Your task to perform on an android device: What's on my calendar tomorrow? Image 0: 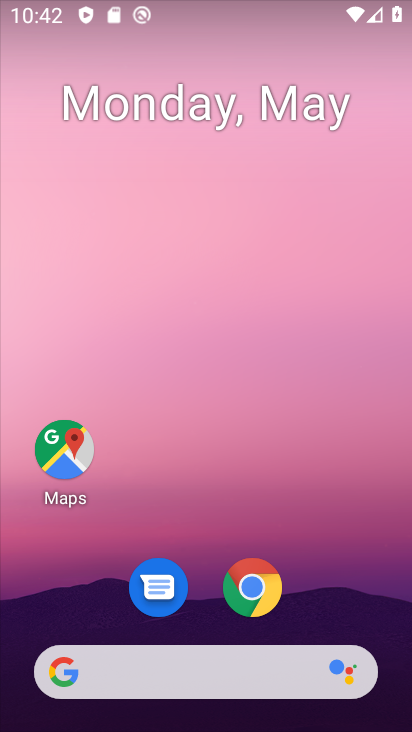
Step 0: drag from (373, 611) to (322, 173)
Your task to perform on an android device: What's on my calendar tomorrow? Image 1: 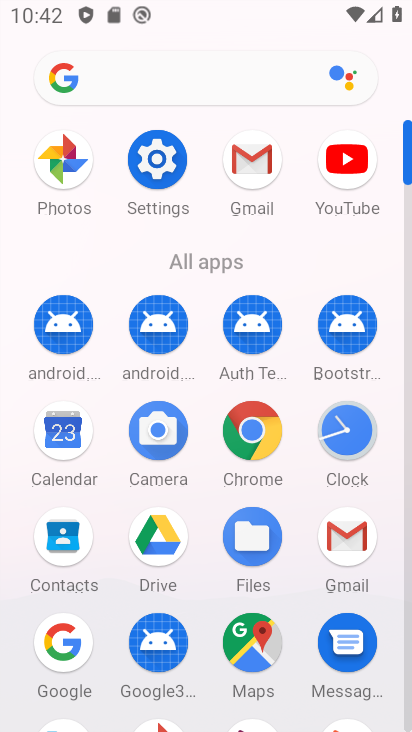
Step 1: click (72, 447)
Your task to perform on an android device: What's on my calendar tomorrow? Image 2: 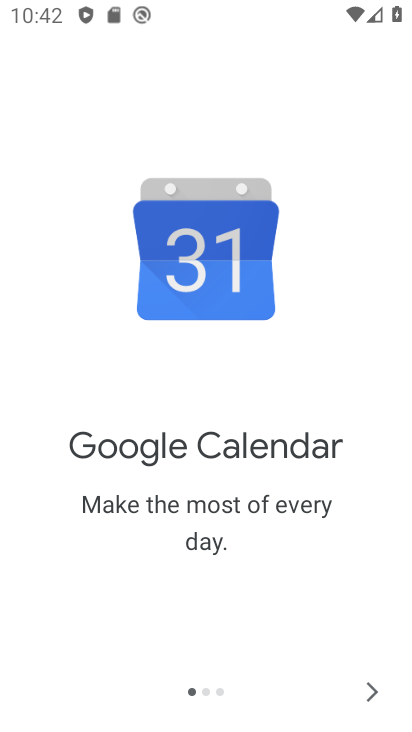
Step 2: click (369, 684)
Your task to perform on an android device: What's on my calendar tomorrow? Image 3: 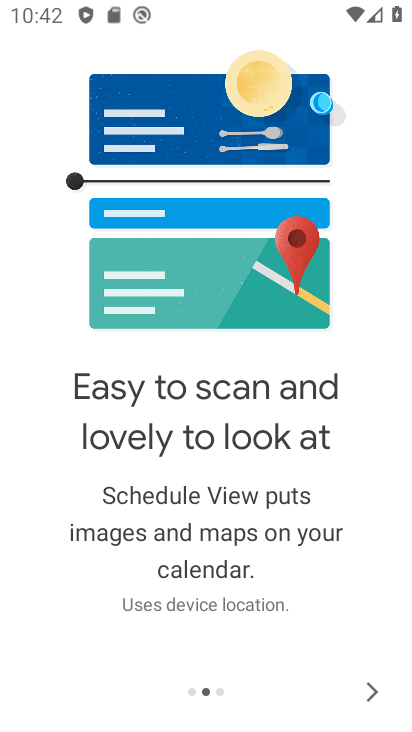
Step 3: click (369, 684)
Your task to perform on an android device: What's on my calendar tomorrow? Image 4: 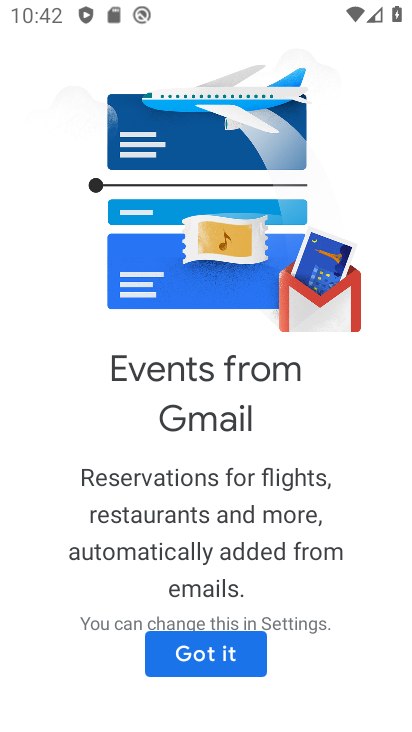
Step 4: click (242, 659)
Your task to perform on an android device: What's on my calendar tomorrow? Image 5: 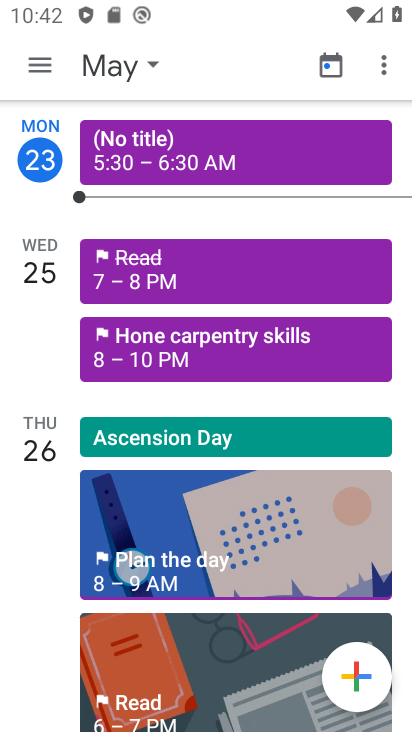
Step 5: click (126, 62)
Your task to perform on an android device: What's on my calendar tomorrow? Image 6: 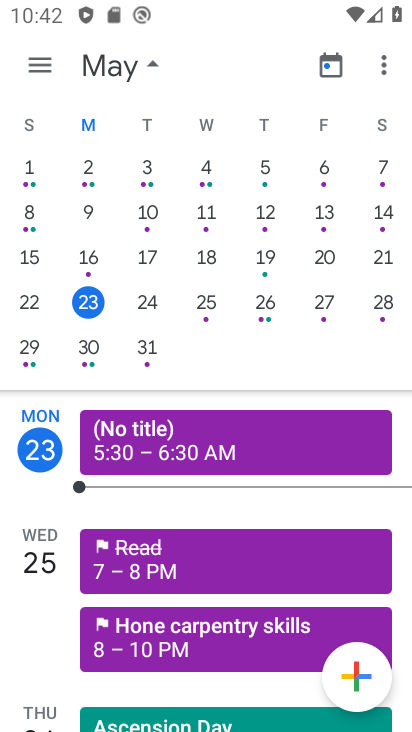
Step 6: click (205, 303)
Your task to perform on an android device: What's on my calendar tomorrow? Image 7: 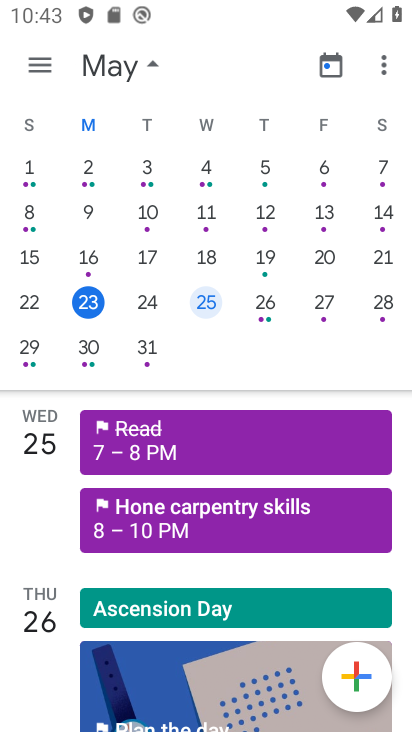
Step 7: click (145, 67)
Your task to perform on an android device: What's on my calendar tomorrow? Image 8: 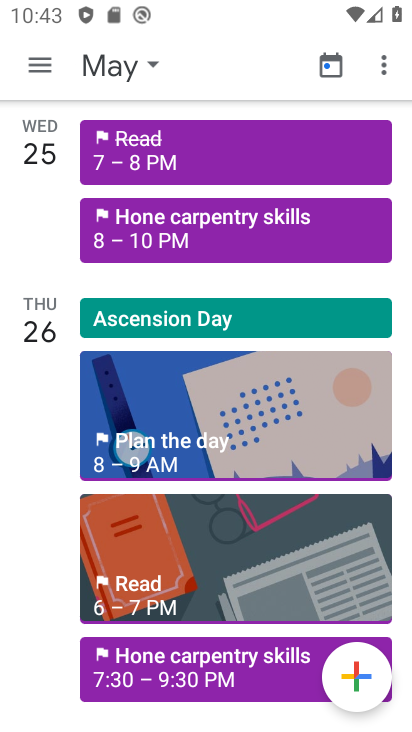
Step 8: task complete